Your task to perform on an android device: find which apps use the phone's location Image 0: 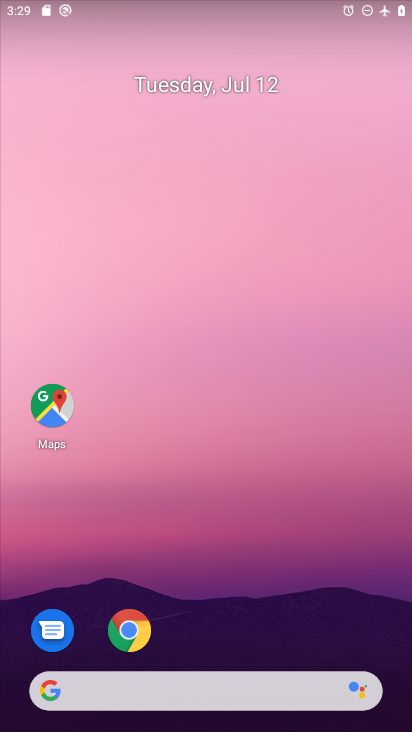
Step 0: drag from (192, 644) to (188, 112)
Your task to perform on an android device: find which apps use the phone's location Image 1: 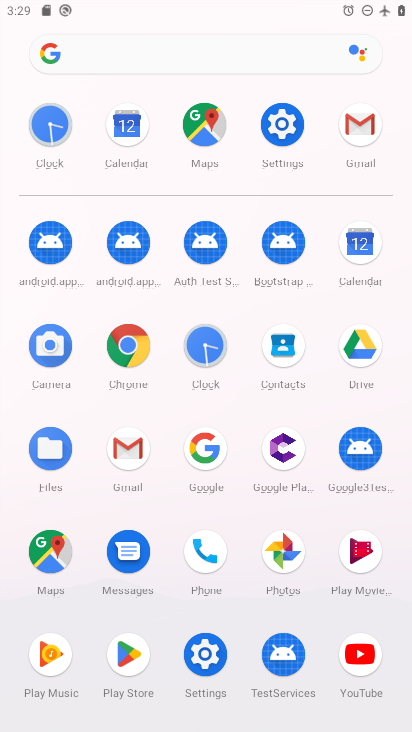
Step 1: click (257, 119)
Your task to perform on an android device: find which apps use the phone's location Image 2: 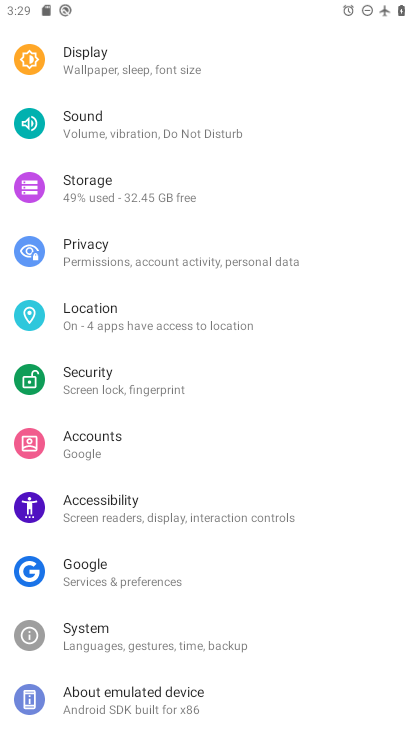
Step 2: click (163, 330)
Your task to perform on an android device: find which apps use the phone's location Image 3: 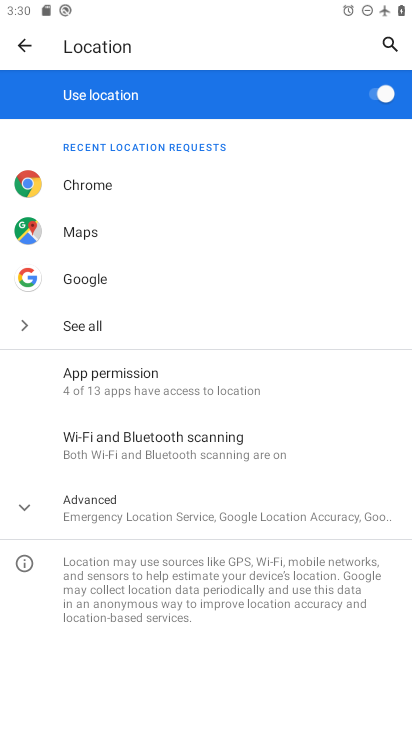
Step 3: click (135, 371)
Your task to perform on an android device: find which apps use the phone's location Image 4: 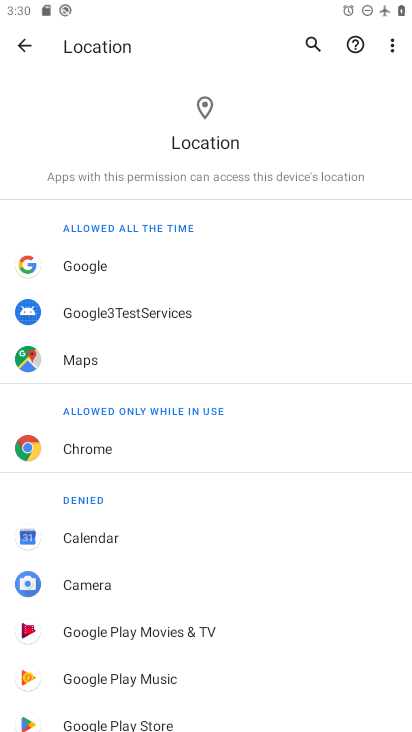
Step 4: task complete